Your task to perform on an android device: open a new tab in the chrome app Image 0: 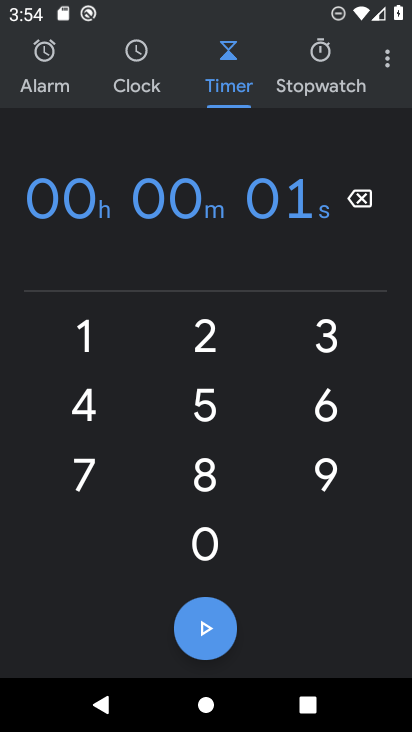
Step 0: press home button
Your task to perform on an android device: open a new tab in the chrome app Image 1: 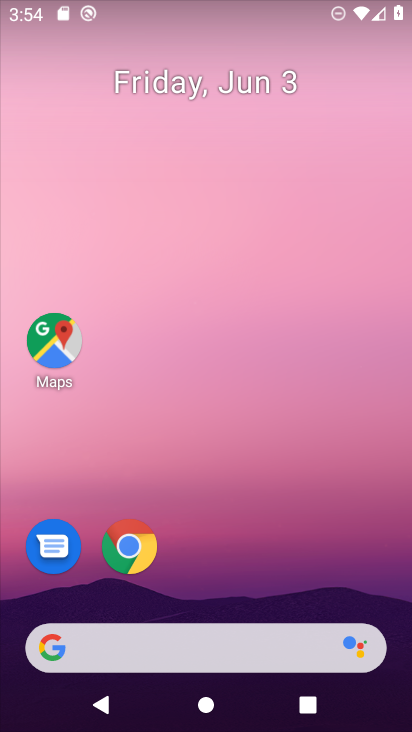
Step 1: click (135, 555)
Your task to perform on an android device: open a new tab in the chrome app Image 2: 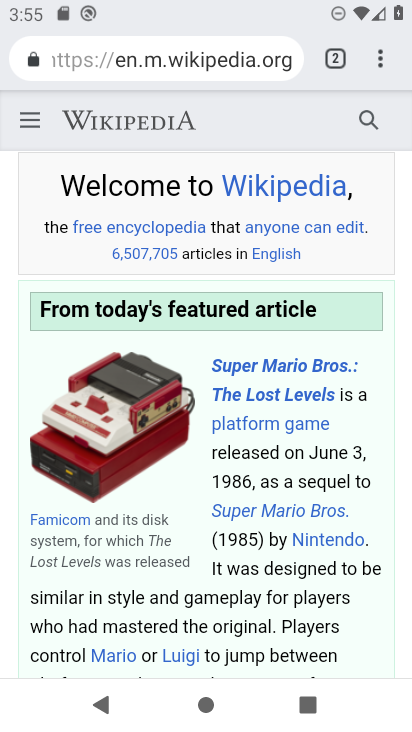
Step 2: click (376, 56)
Your task to perform on an android device: open a new tab in the chrome app Image 3: 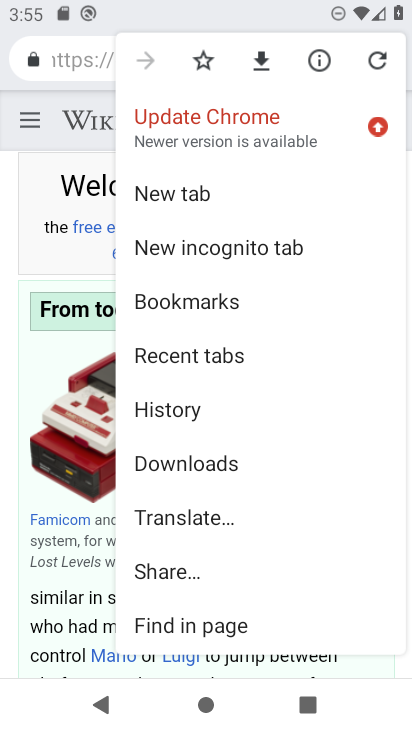
Step 3: click (229, 188)
Your task to perform on an android device: open a new tab in the chrome app Image 4: 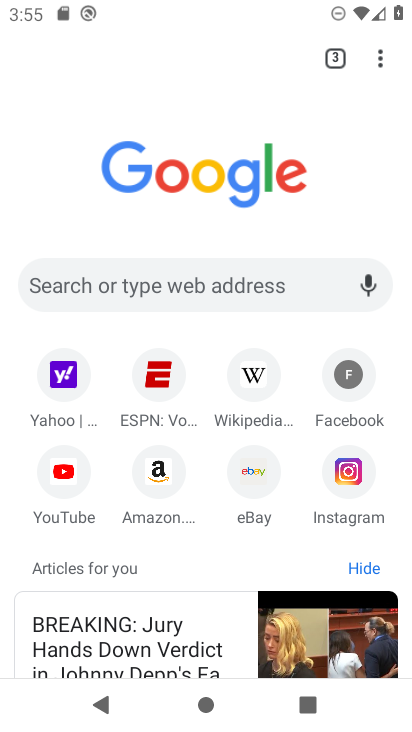
Step 4: task complete